Your task to perform on an android device: Go to battery settings Image 0: 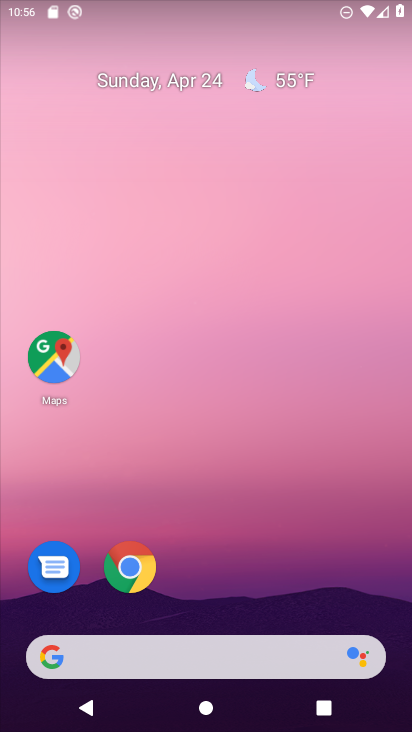
Step 0: drag from (392, 626) to (292, 103)
Your task to perform on an android device: Go to battery settings Image 1: 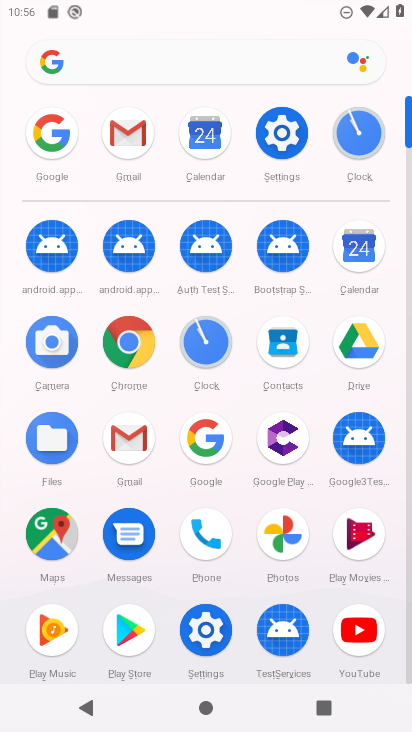
Step 1: click (278, 125)
Your task to perform on an android device: Go to battery settings Image 2: 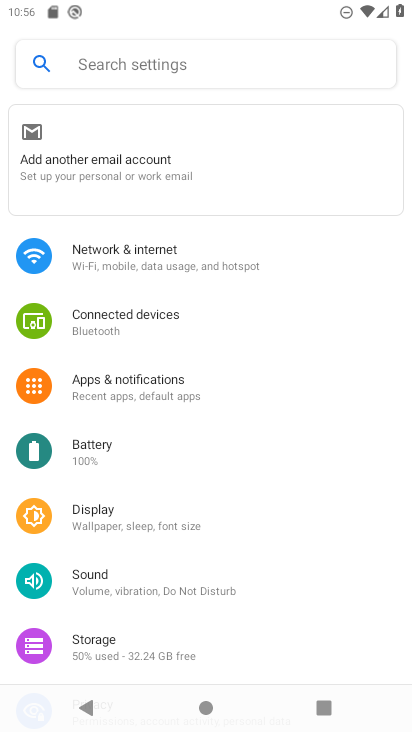
Step 2: drag from (304, 617) to (280, 315)
Your task to perform on an android device: Go to battery settings Image 3: 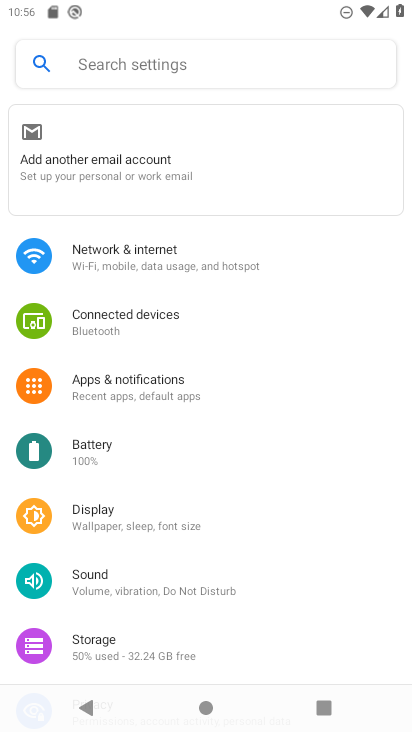
Step 3: click (72, 444)
Your task to perform on an android device: Go to battery settings Image 4: 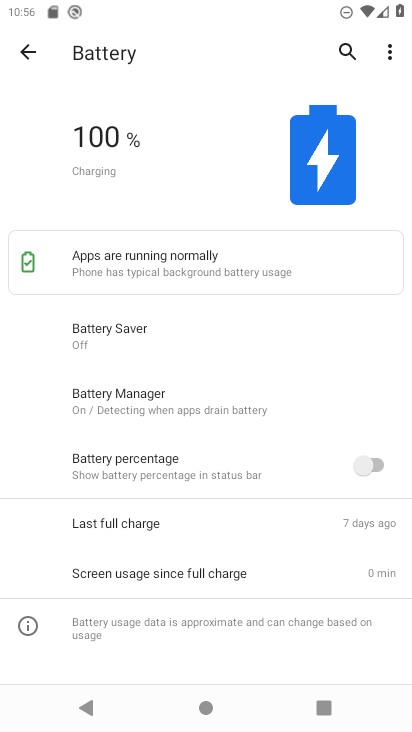
Step 4: task complete